Your task to perform on an android device: turn on priority inbox in the gmail app Image 0: 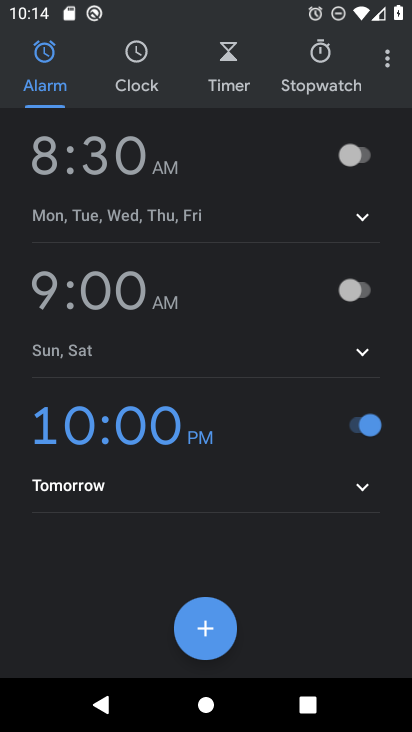
Step 0: press home button
Your task to perform on an android device: turn on priority inbox in the gmail app Image 1: 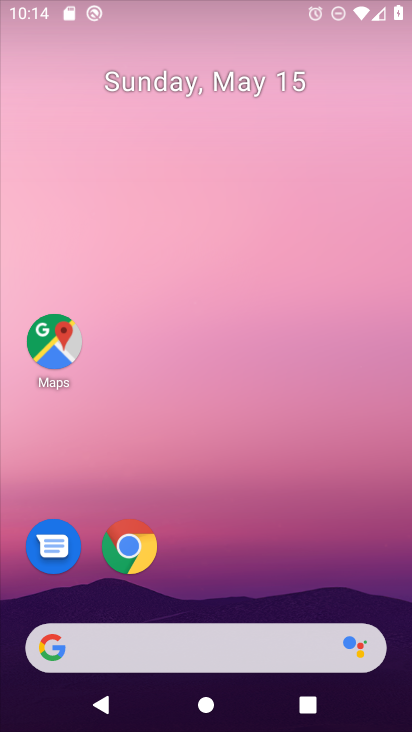
Step 1: drag from (324, 551) to (315, 141)
Your task to perform on an android device: turn on priority inbox in the gmail app Image 2: 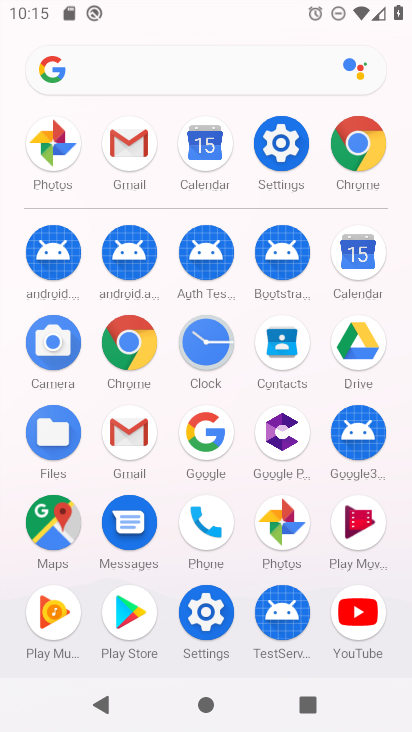
Step 2: click (121, 163)
Your task to perform on an android device: turn on priority inbox in the gmail app Image 3: 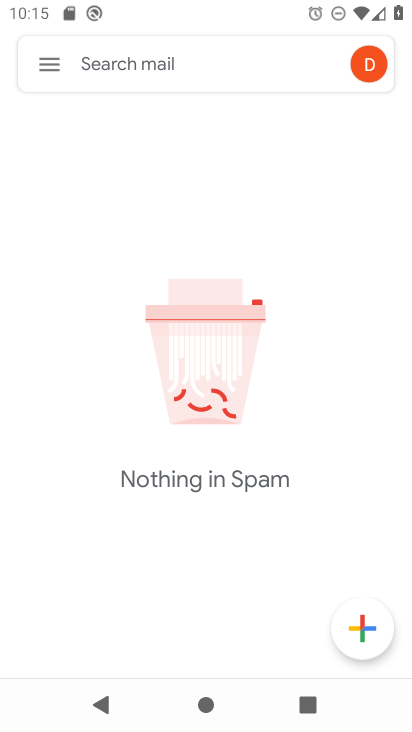
Step 3: click (48, 64)
Your task to perform on an android device: turn on priority inbox in the gmail app Image 4: 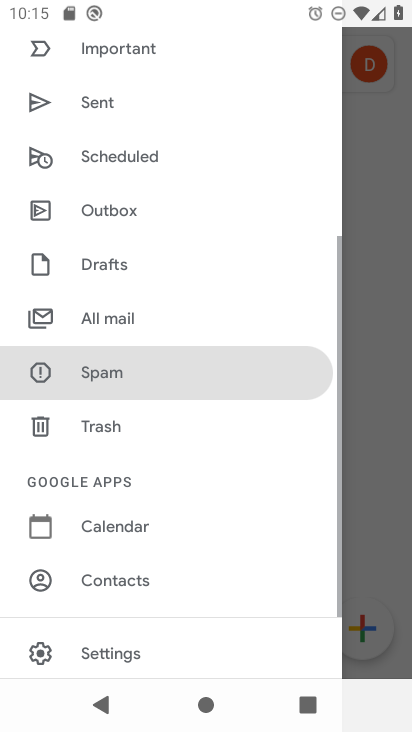
Step 4: drag from (177, 584) to (290, 172)
Your task to perform on an android device: turn on priority inbox in the gmail app Image 5: 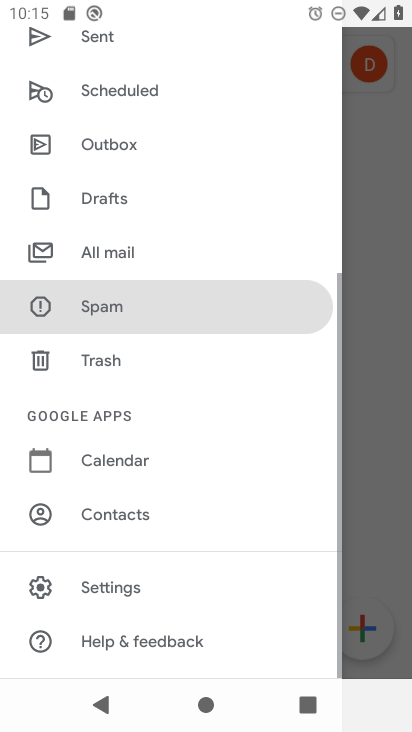
Step 5: click (92, 585)
Your task to perform on an android device: turn on priority inbox in the gmail app Image 6: 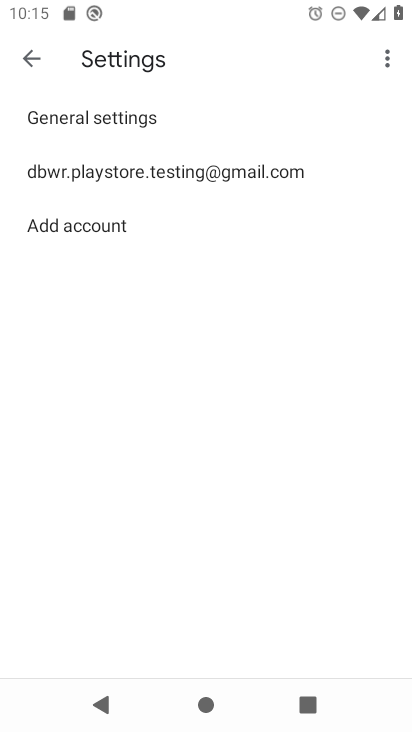
Step 6: click (77, 522)
Your task to perform on an android device: turn on priority inbox in the gmail app Image 7: 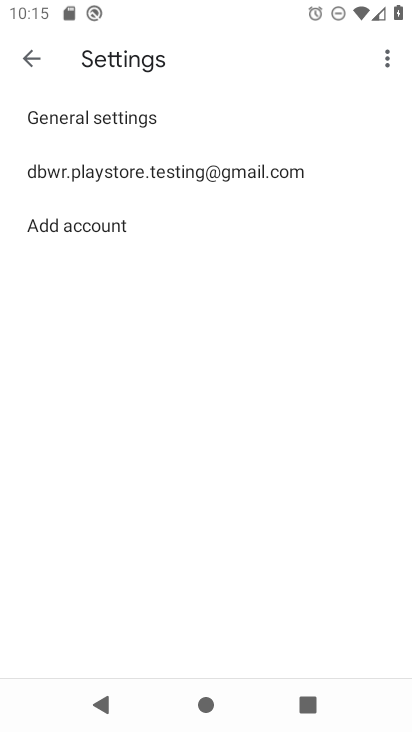
Step 7: click (171, 187)
Your task to perform on an android device: turn on priority inbox in the gmail app Image 8: 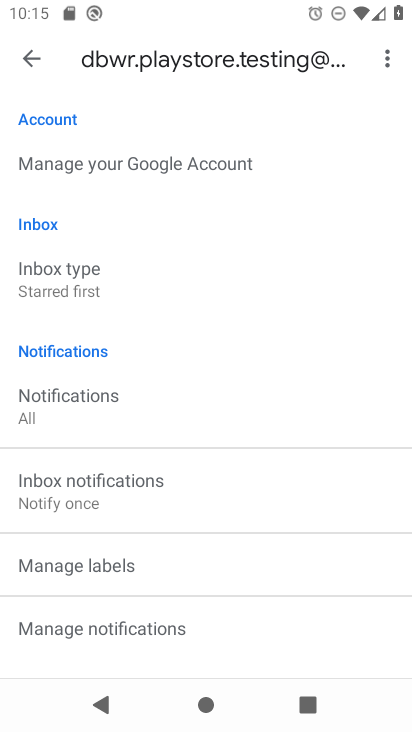
Step 8: drag from (217, 524) to (323, 160)
Your task to perform on an android device: turn on priority inbox in the gmail app Image 9: 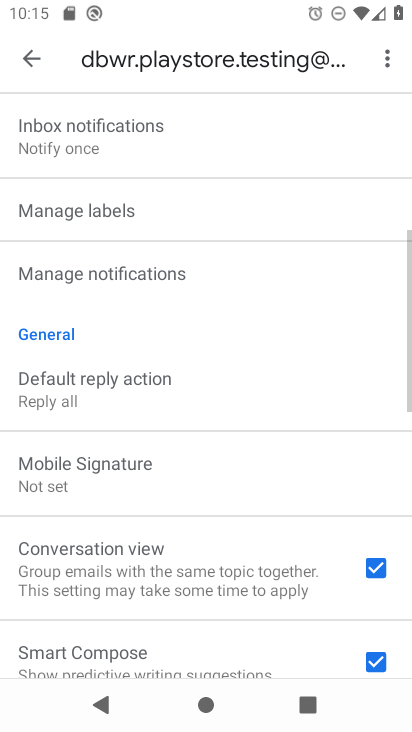
Step 9: drag from (156, 581) to (316, 278)
Your task to perform on an android device: turn on priority inbox in the gmail app Image 10: 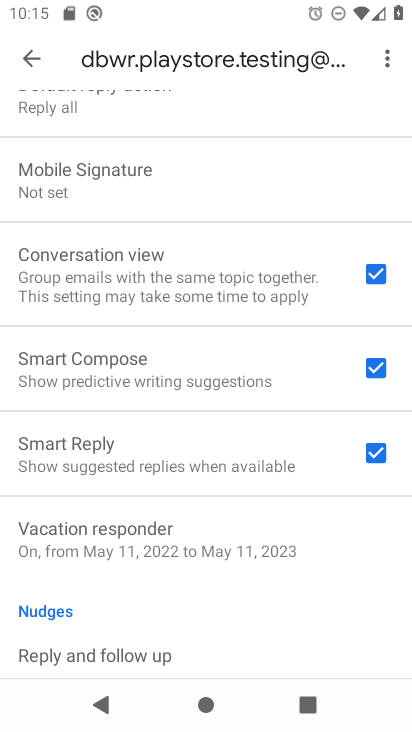
Step 10: click (179, 547)
Your task to perform on an android device: turn on priority inbox in the gmail app Image 11: 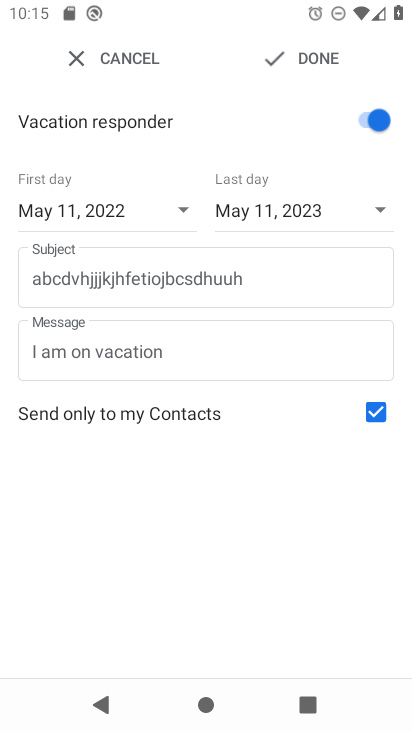
Step 11: click (82, 58)
Your task to perform on an android device: turn on priority inbox in the gmail app Image 12: 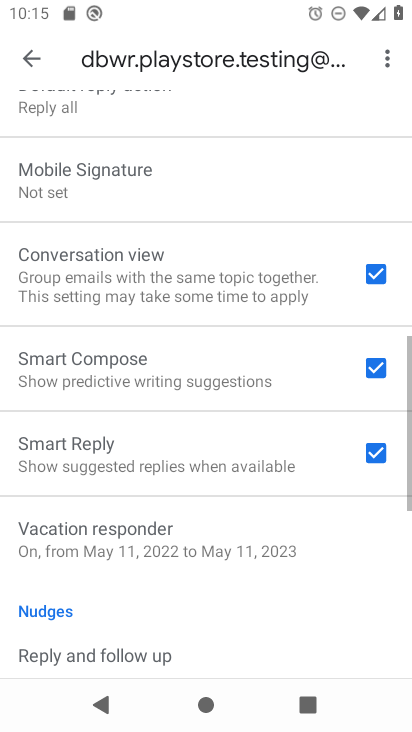
Step 12: drag from (131, 179) to (139, 678)
Your task to perform on an android device: turn on priority inbox in the gmail app Image 13: 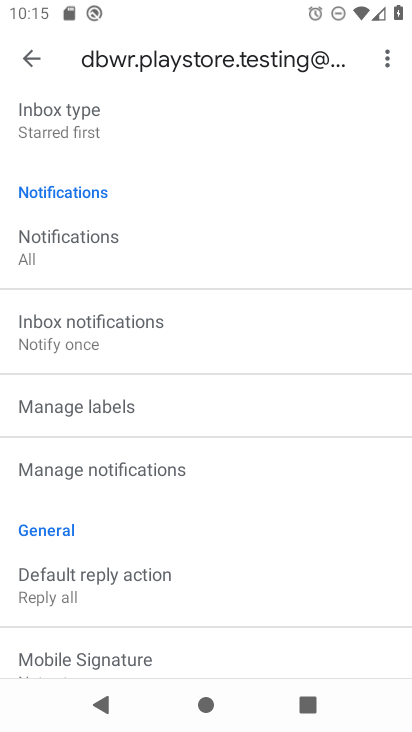
Step 13: drag from (134, 219) to (75, 535)
Your task to perform on an android device: turn on priority inbox in the gmail app Image 14: 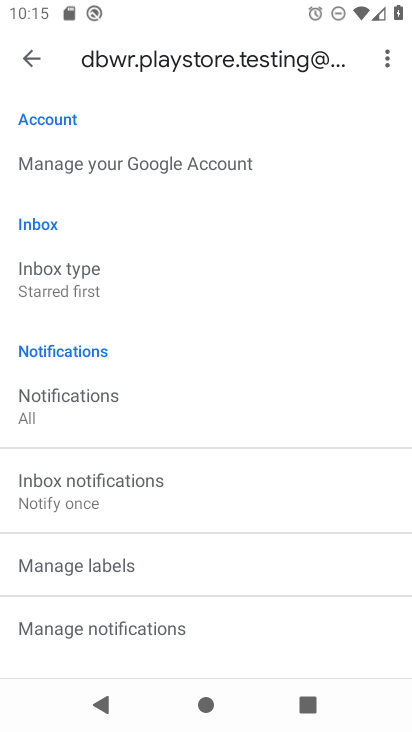
Step 14: click (59, 268)
Your task to perform on an android device: turn on priority inbox in the gmail app Image 15: 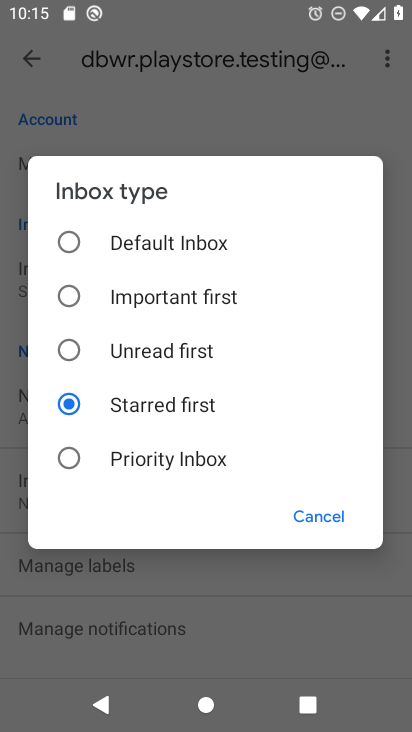
Step 15: task complete